Your task to perform on an android device: turn off improve location accuracy Image 0: 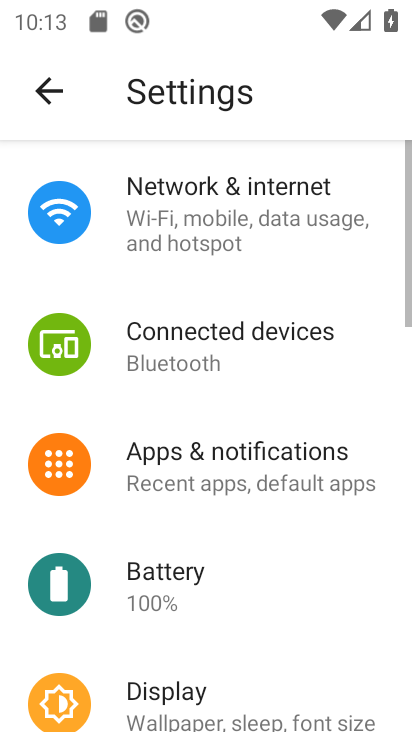
Step 0: drag from (258, 532) to (236, 195)
Your task to perform on an android device: turn off improve location accuracy Image 1: 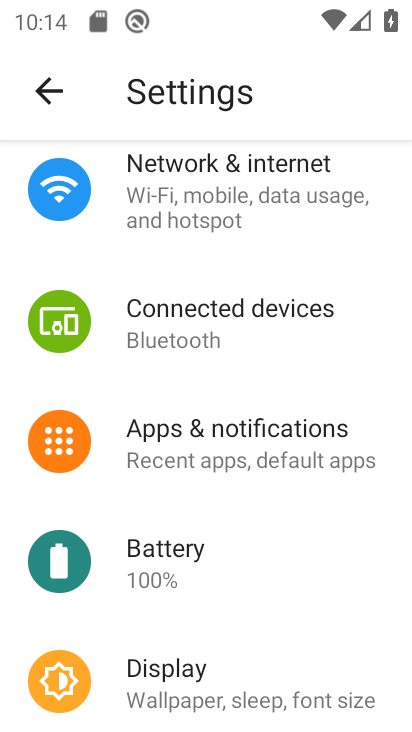
Step 1: drag from (255, 578) to (222, 146)
Your task to perform on an android device: turn off improve location accuracy Image 2: 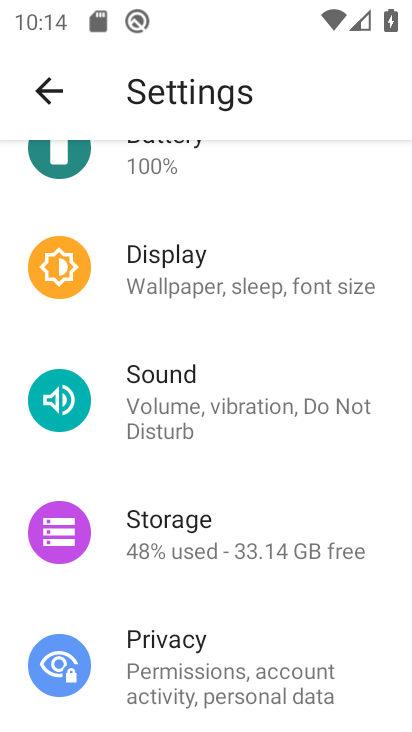
Step 2: drag from (264, 618) to (238, 94)
Your task to perform on an android device: turn off improve location accuracy Image 3: 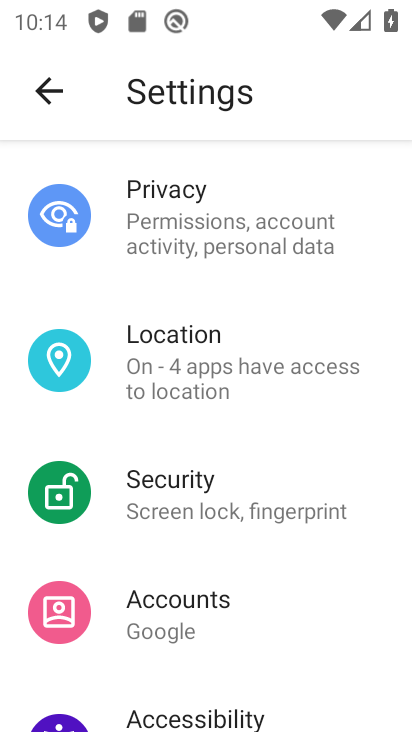
Step 3: click (198, 360)
Your task to perform on an android device: turn off improve location accuracy Image 4: 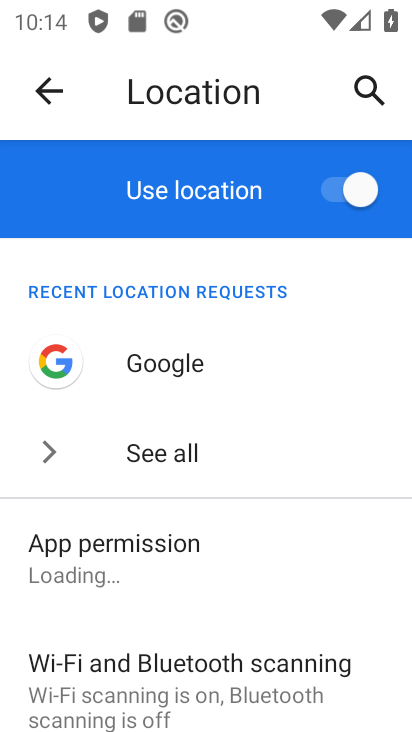
Step 4: drag from (202, 529) to (209, 220)
Your task to perform on an android device: turn off improve location accuracy Image 5: 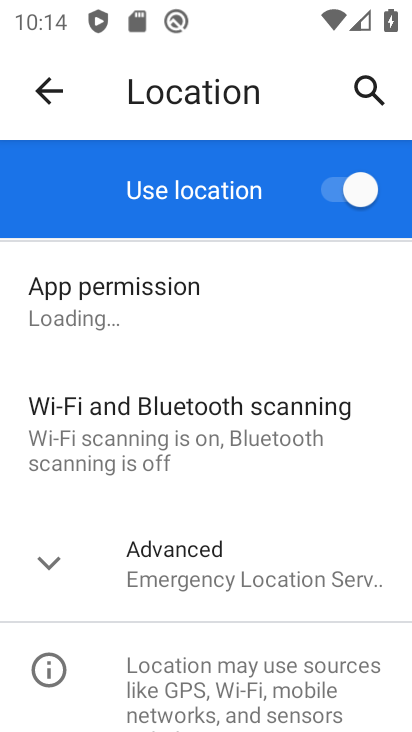
Step 5: click (160, 567)
Your task to perform on an android device: turn off improve location accuracy Image 6: 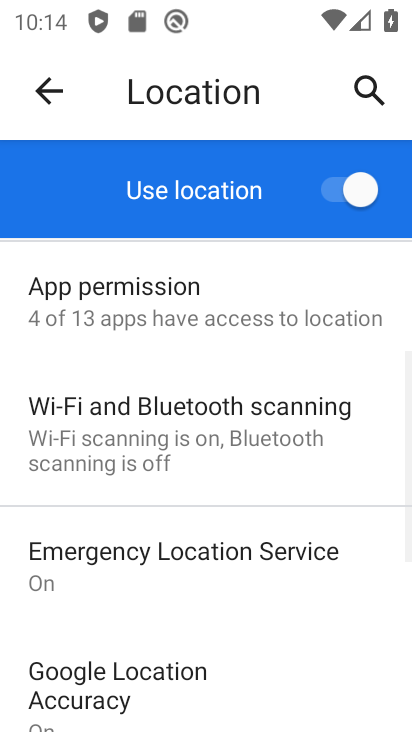
Step 6: click (157, 674)
Your task to perform on an android device: turn off improve location accuracy Image 7: 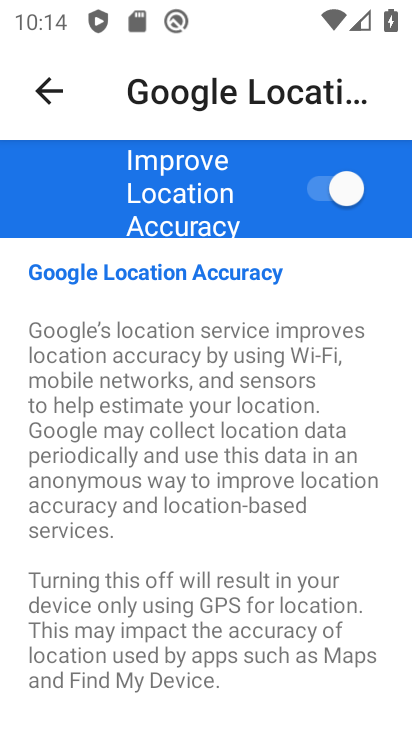
Step 7: click (358, 200)
Your task to perform on an android device: turn off improve location accuracy Image 8: 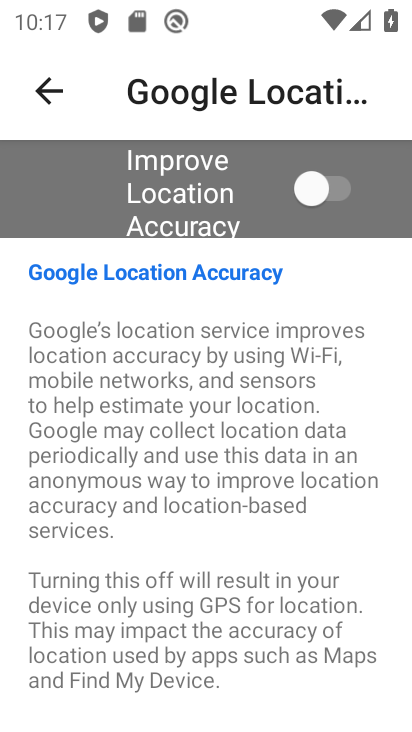
Step 8: task complete